Your task to perform on an android device: Open Chrome and go to settings Image 0: 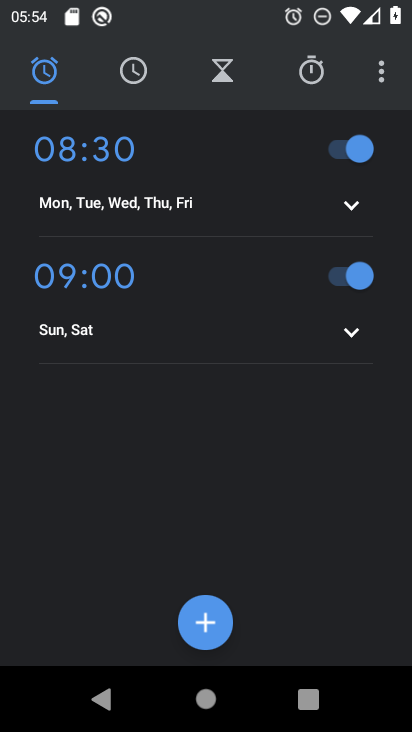
Step 0: press home button
Your task to perform on an android device: Open Chrome and go to settings Image 1: 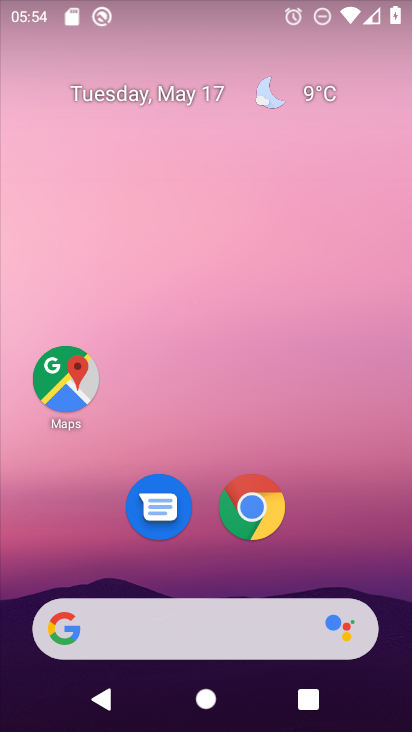
Step 1: click (264, 503)
Your task to perform on an android device: Open Chrome and go to settings Image 2: 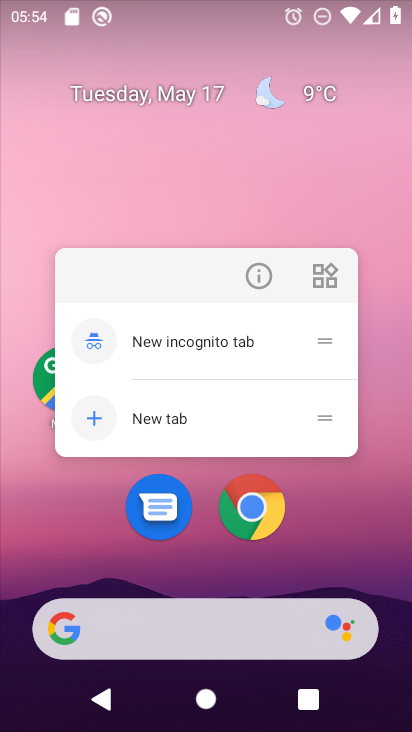
Step 2: click (243, 520)
Your task to perform on an android device: Open Chrome and go to settings Image 3: 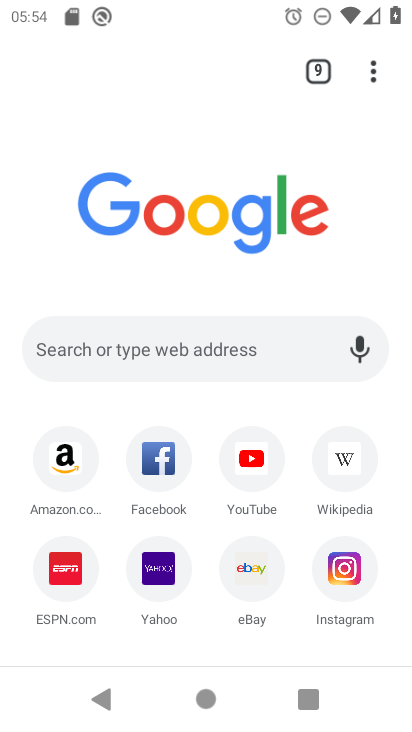
Step 3: click (371, 76)
Your task to perform on an android device: Open Chrome and go to settings Image 4: 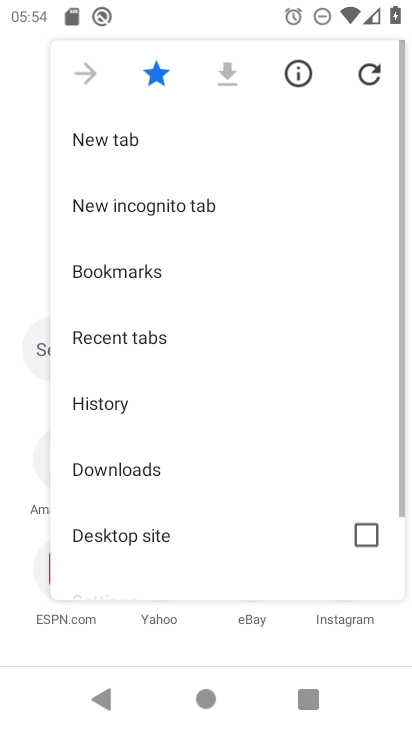
Step 4: drag from (191, 531) to (193, 180)
Your task to perform on an android device: Open Chrome and go to settings Image 5: 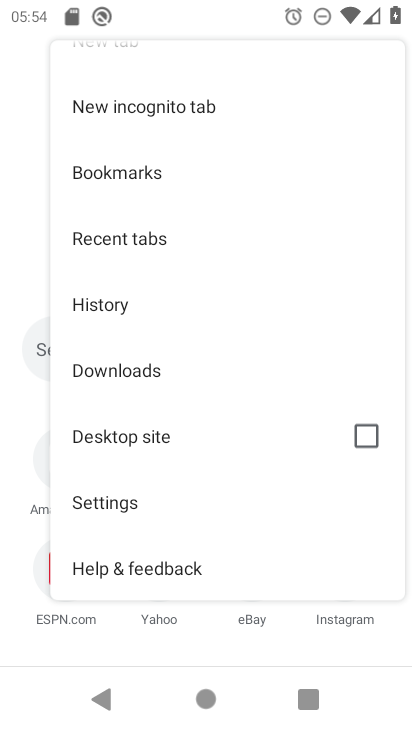
Step 5: click (137, 497)
Your task to perform on an android device: Open Chrome and go to settings Image 6: 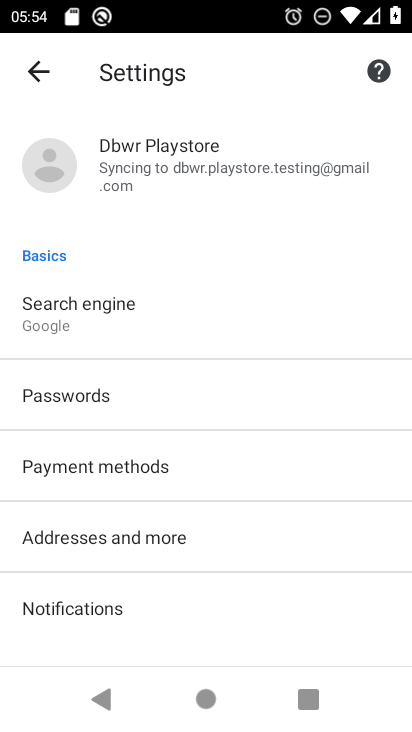
Step 6: task complete